Your task to perform on an android device: Open the phone app and click the voicemail tab. Image 0: 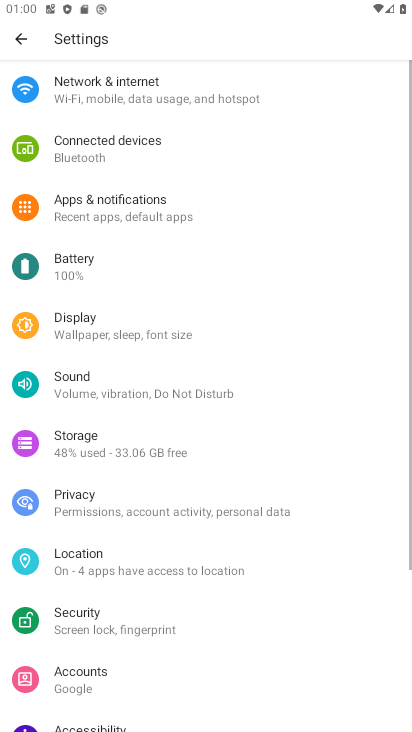
Step 0: press home button
Your task to perform on an android device: Open the phone app and click the voicemail tab. Image 1: 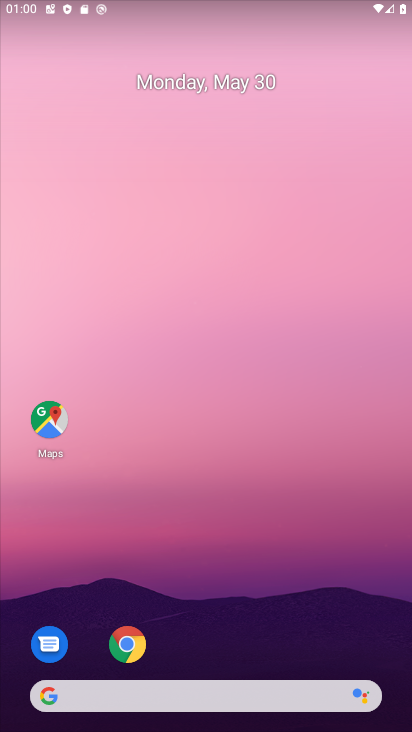
Step 1: drag from (388, 587) to (345, 171)
Your task to perform on an android device: Open the phone app and click the voicemail tab. Image 2: 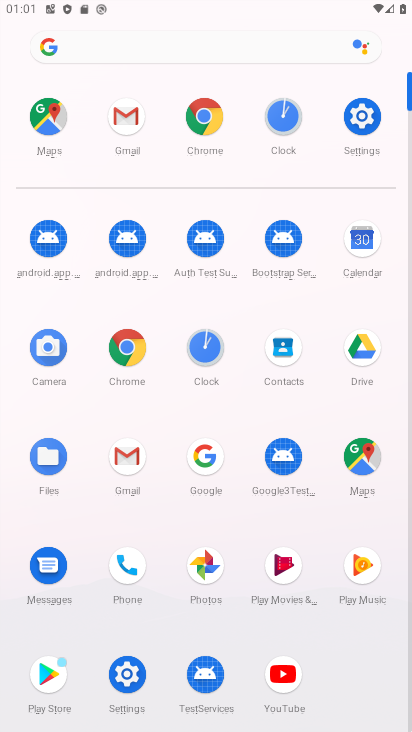
Step 2: click (118, 573)
Your task to perform on an android device: Open the phone app and click the voicemail tab. Image 3: 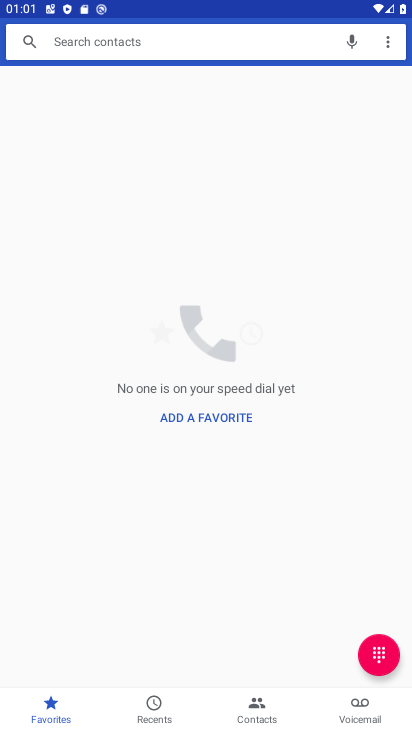
Step 3: click (345, 705)
Your task to perform on an android device: Open the phone app and click the voicemail tab. Image 4: 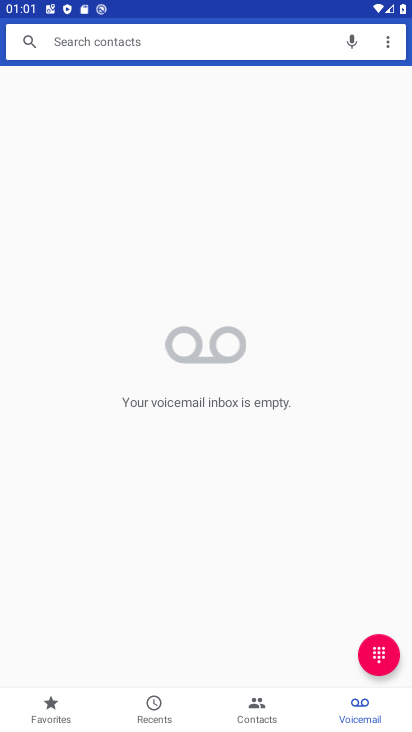
Step 4: task complete